Your task to perform on an android device: add a label to a message in the gmail app Image 0: 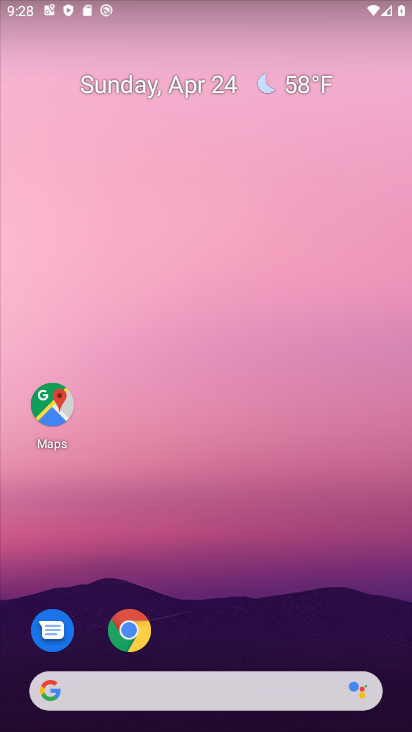
Step 0: drag from (270, 673) to (337, 73)
Your task to perform on an android device: add a label to a message in the gmail app Image 1: 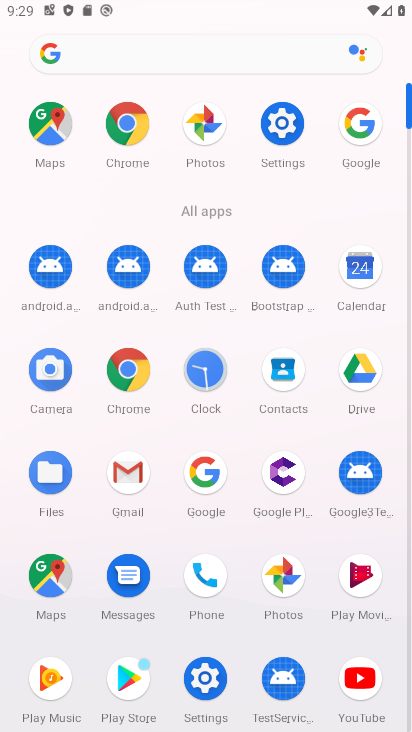
Step 1: click (127, 476)
Your task to perform on an android device: add a label to a message in the gmail app Image 2: 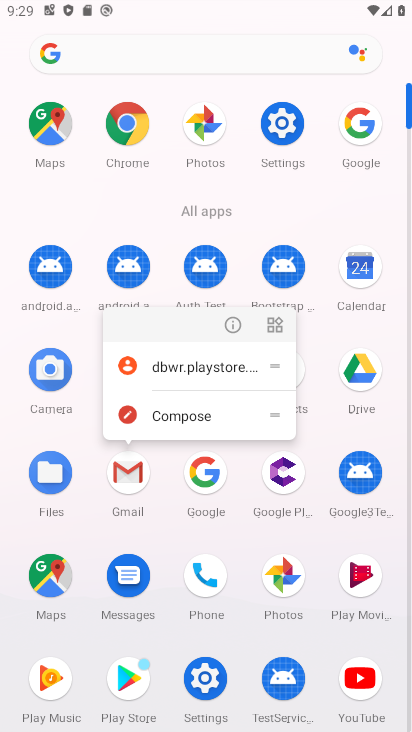
Step 2: click (140, 478)
Your task to perform on an android device: add a label to a message in the gmail app Image 3: 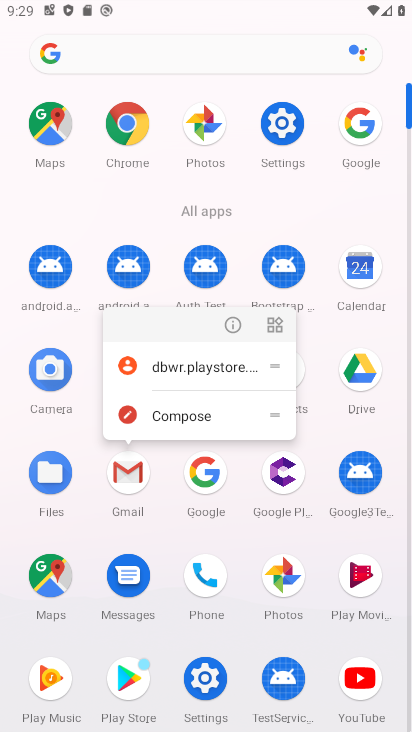
Step 3: click (140, 478)
Your task to perform on an android device: add a label to a message in the gmail app Image 4: 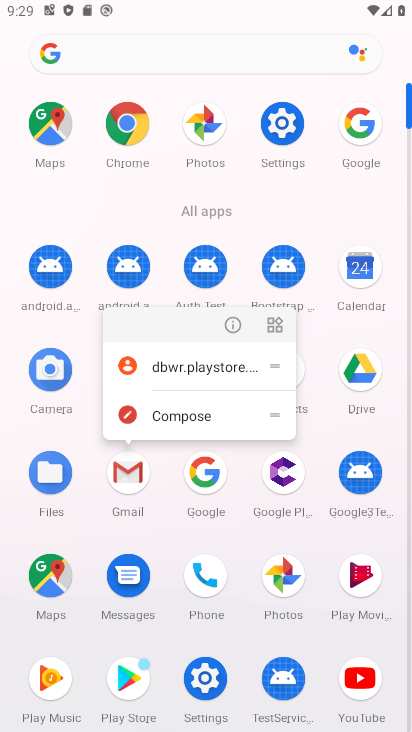
Step 4: click (127, 488)
Your task to perform on an android device: add a label to a message in the gmail app Image 5: 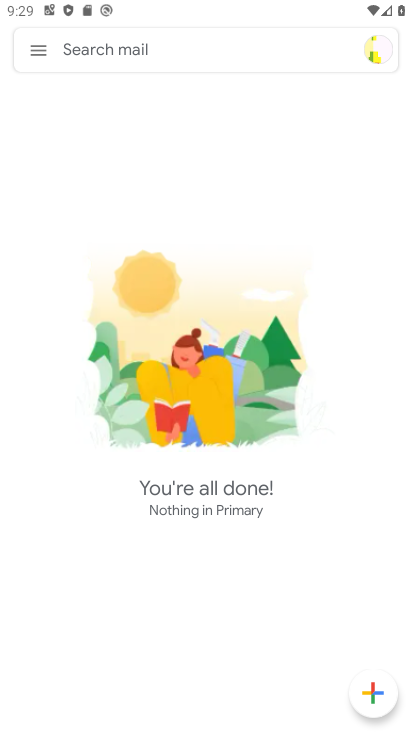
Step 5: click (45, 56)
Your task to perform on an android device: add a label to a message in the gmail app Image 6: 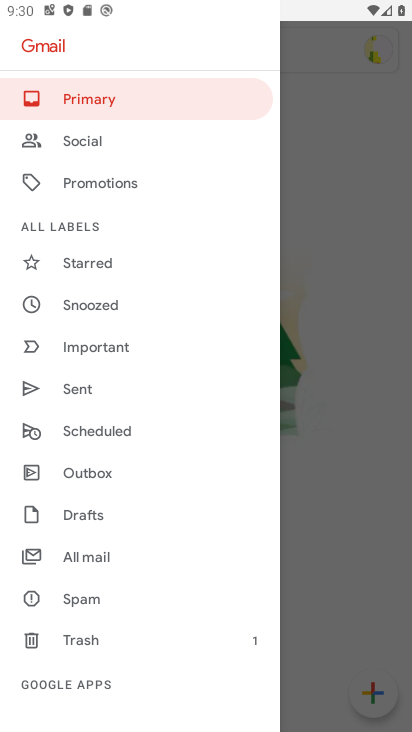
Step 6: click (125, 569)
Your task to perform on an android device: add a label to a message in the gmail app Image 7: 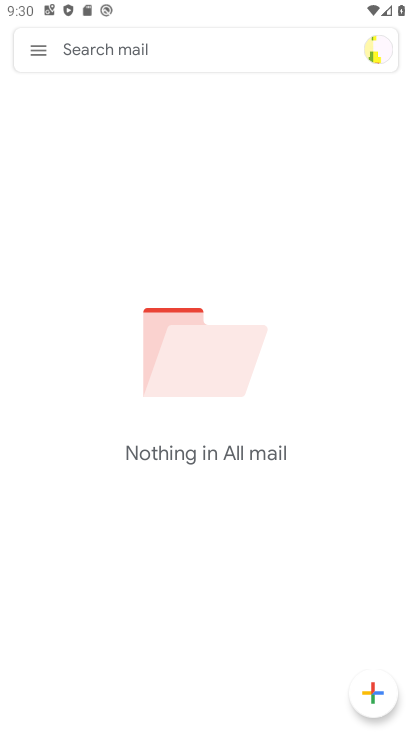
Step 7: task complete